Your task to perform on an android device: Open ESPN.com Image 0: 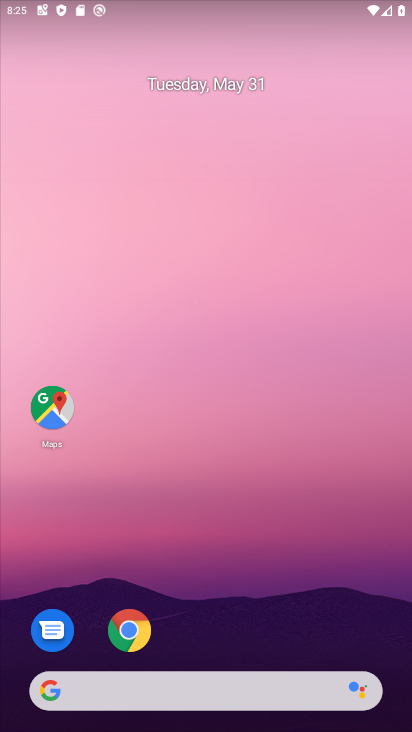
Step 0: click (138, 633)
Your task to perform on an android device: Open ESPN.com Image 1: 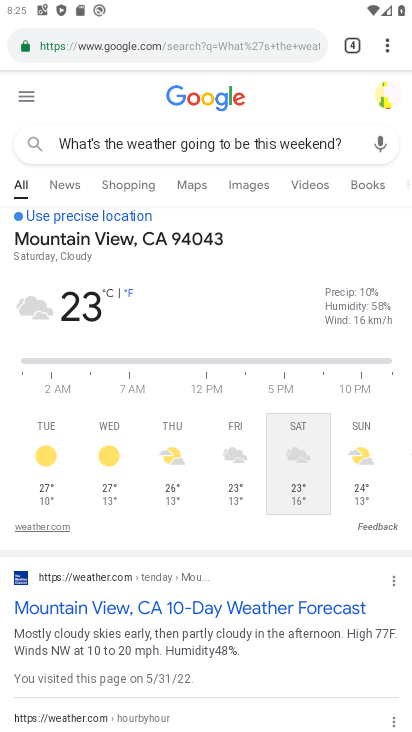
Step 1: click (378, 48)
Your task to perform on an android device: Open ESPN.com Image 2: 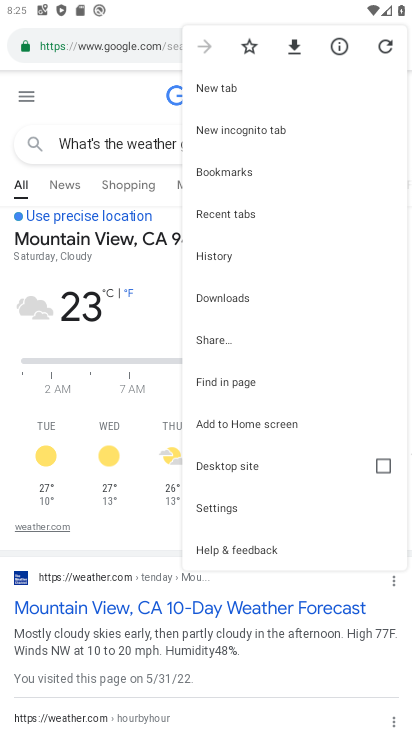
Step 2: click (248, 100)
Your task to perform on an android device: Open ESPN.com Image 3: 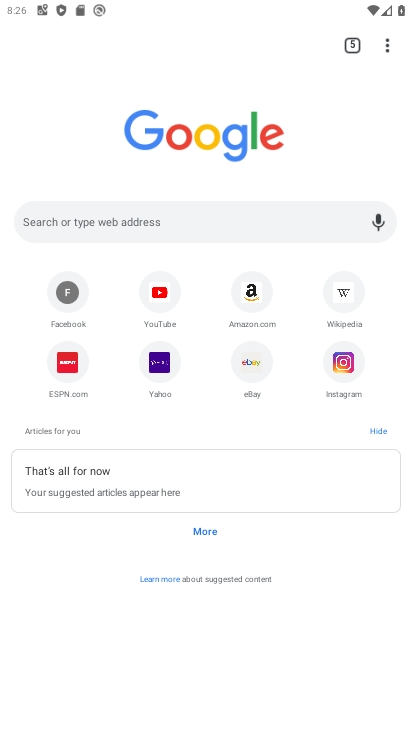
Step 3: click (69, 360)
Your task to perform on an android device: Open ESPN.com Image 4: 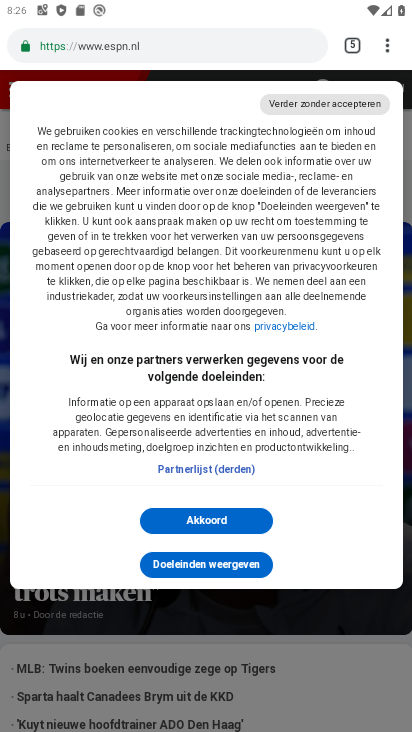
Step 4: task complete